Your task to perform on an android device: Show me recent news Image 0: 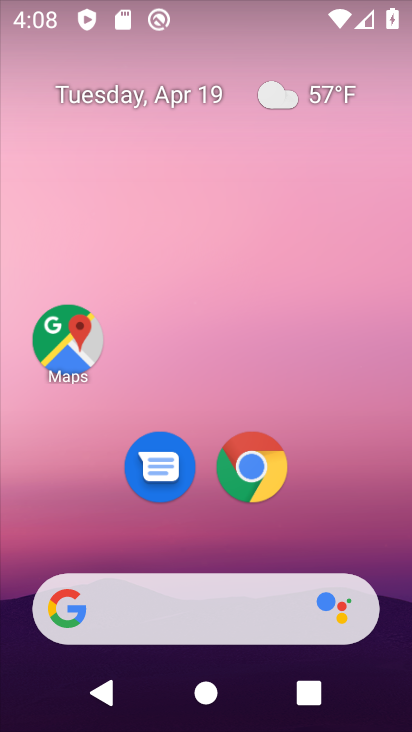
Step 0: drag from (285, 579) to (304, 235)
Your task to perform on an android device: Show me recent news Image 1: 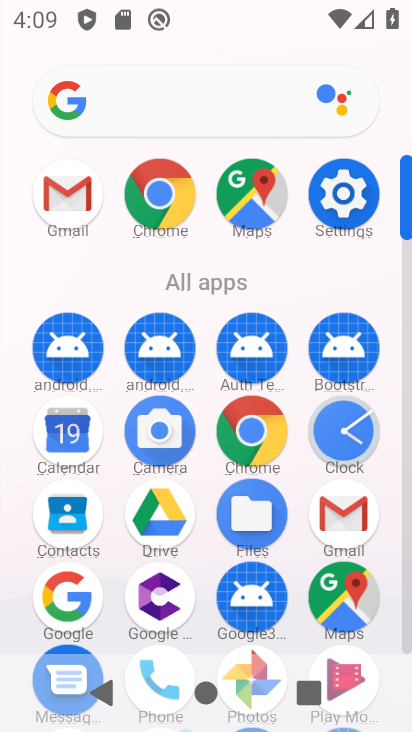
Step 1: click (77, 600)
Your task to perform on an android device: Show me recent news Image 2: 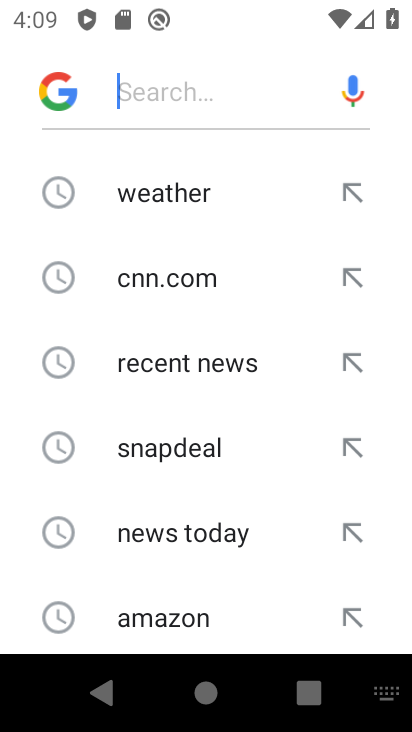
Step 2: click (200, 366)
Your task to perform on an android device: Show me recent news Image 3: 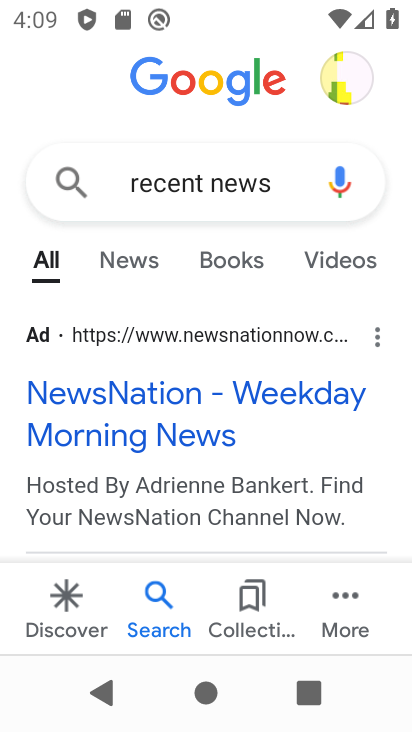
Step 3: click (131, 254)
Your task to perform on an android device: Show me recent news Image 4: 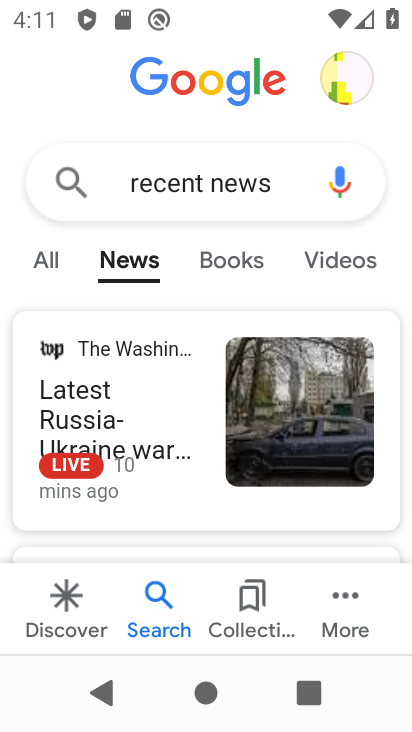
Step 4: task complete